Your task to perform on an android device: Search for jbl flip 4 on walmart, select the first entry, add it to the cart, then select checkout. Image 0: 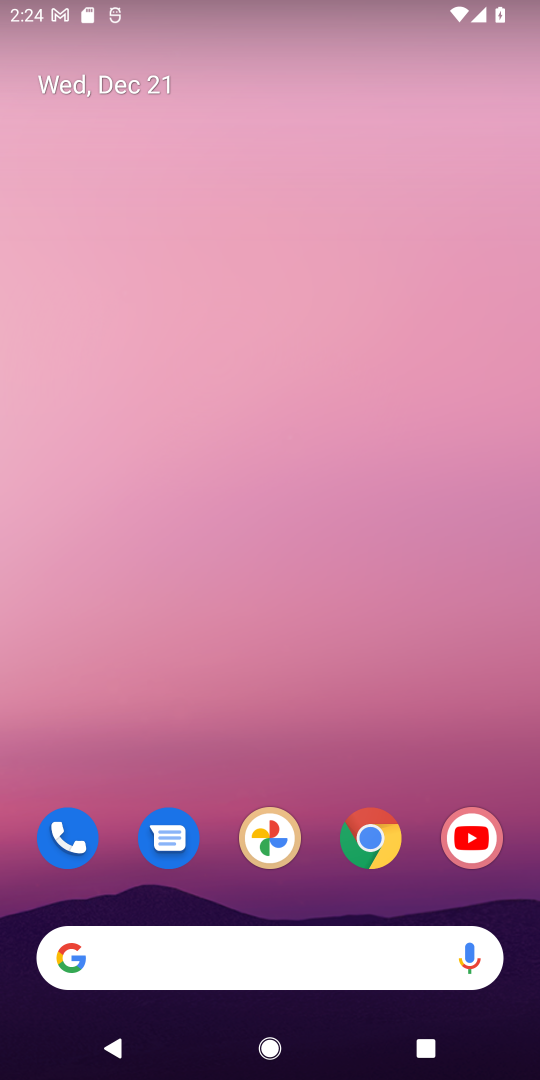
Step 0: click (358, 846)
Your task to perform on an android device: Search for jbl flip 4 on walmart, select the first entry, add it to the cart, then select checkout. Image 1: 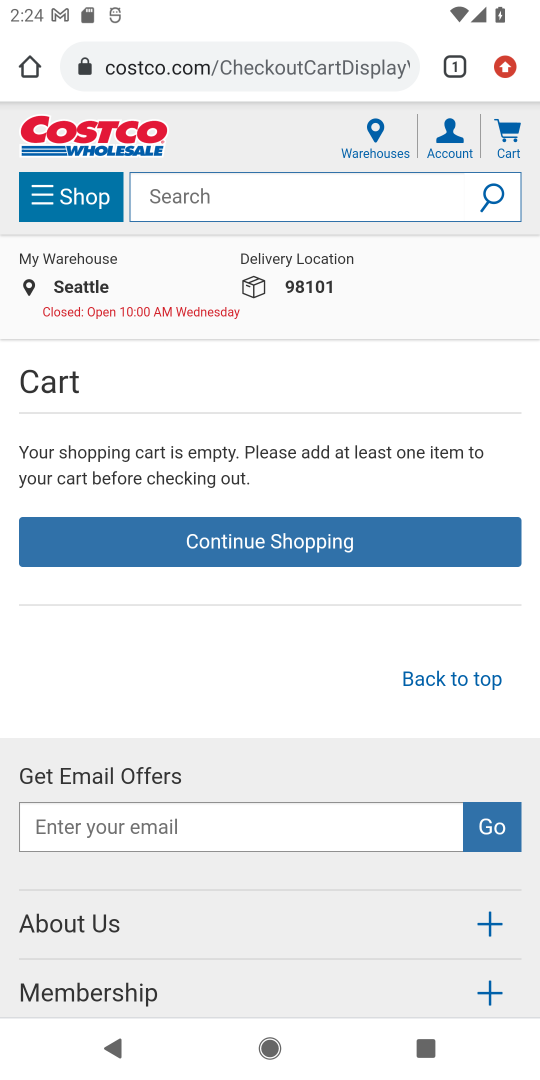
Step 1: click (349, 210)
Your task to perform on an android device: Search for jbl flip 4 on walmart, select the first entry, add it to the cart, then select checkout. Image 2: 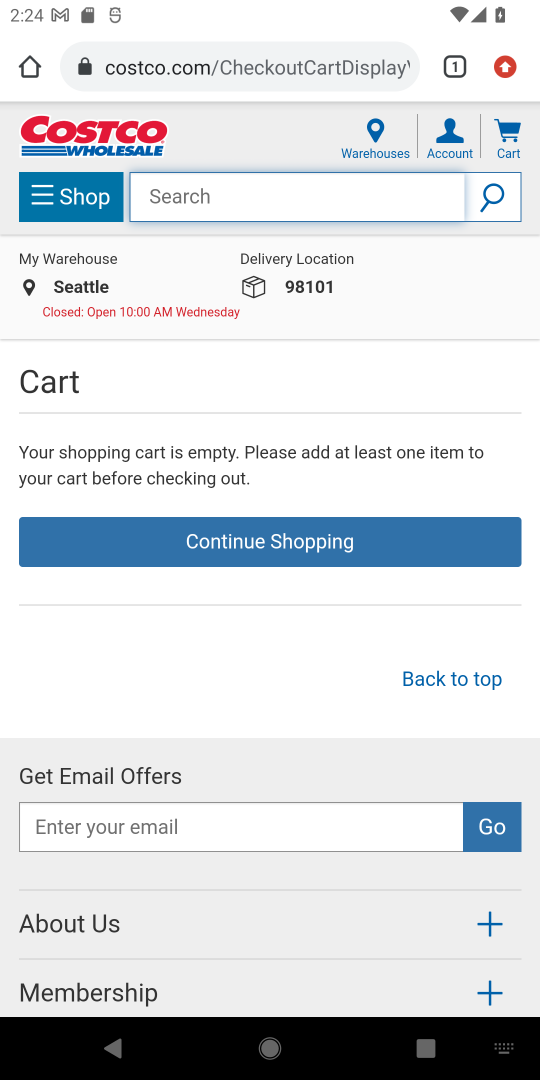
Step 2: click (276, 80)
Your task to perform on an android device: Search for jbl flip 4 on walmart, select the first entry, add it to the cart, then select checkout. Image 3: 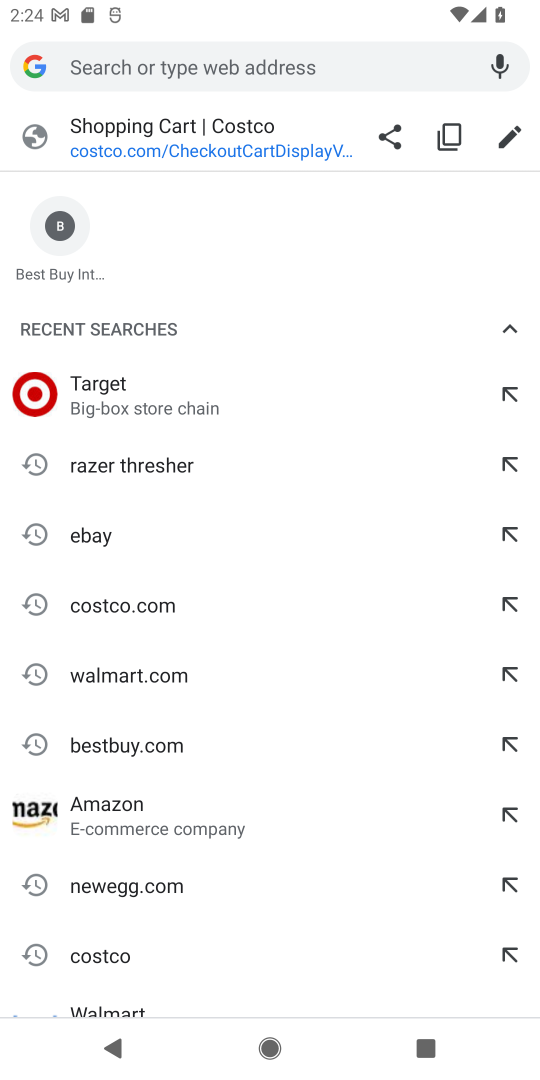
Step 3: type "wakmart"
Your task to perform on an android device: Search for jbl flip 4 on walmart, select the first entry, add it to the cart, then select checkout. Image 4: 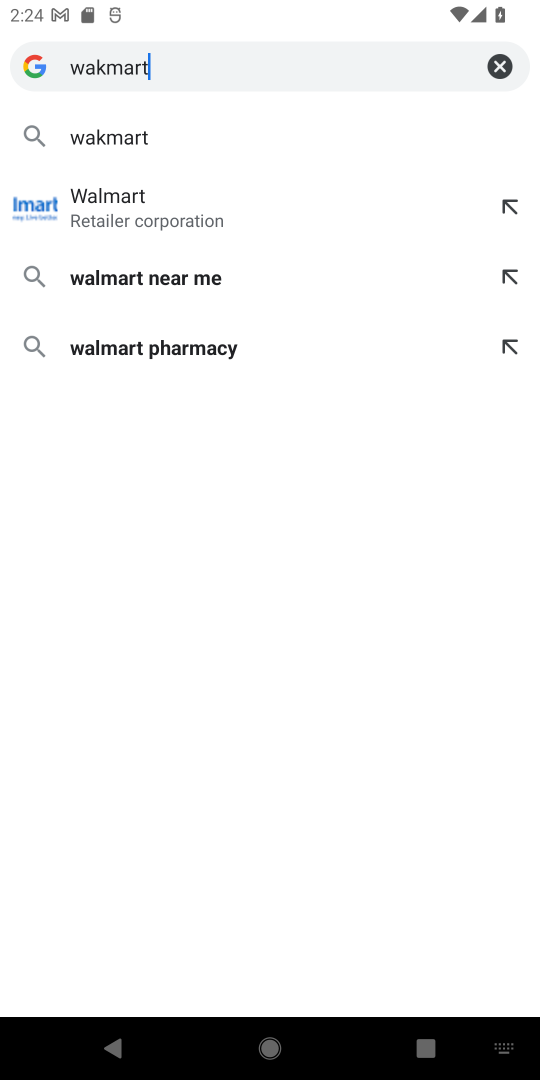
Step 4: click (149, 134)
Your task to perform on an android device: Search for jbl flip 4 on walmart, select the first entry, add it to the cart, then select checkout. Image 5: 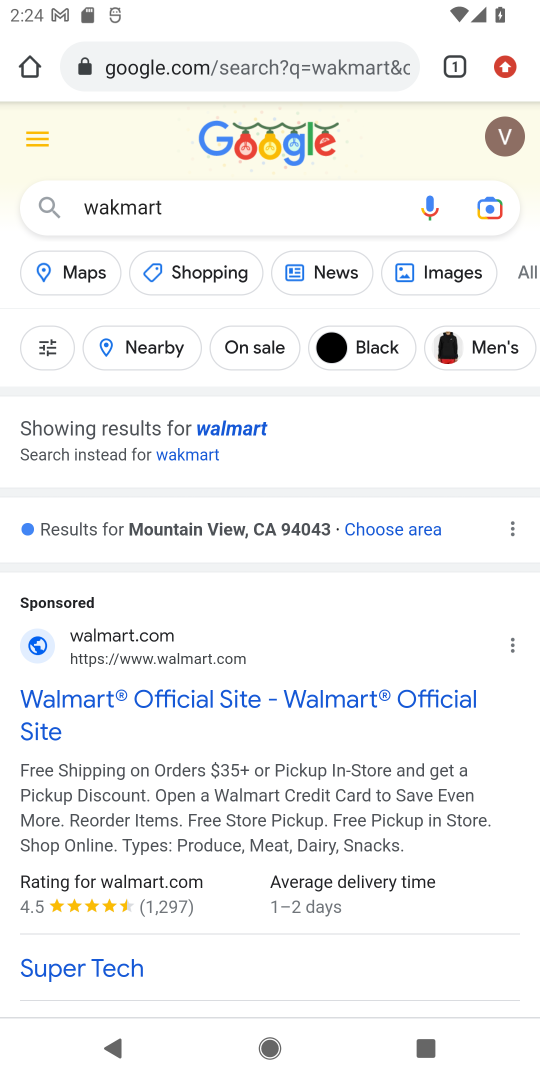
Step 5: click (92, 695)
Your task to perform on an android device: Search for jbl flip 4 on walmart, select the first entry, add it to the cart, then select checkout. Image 6: 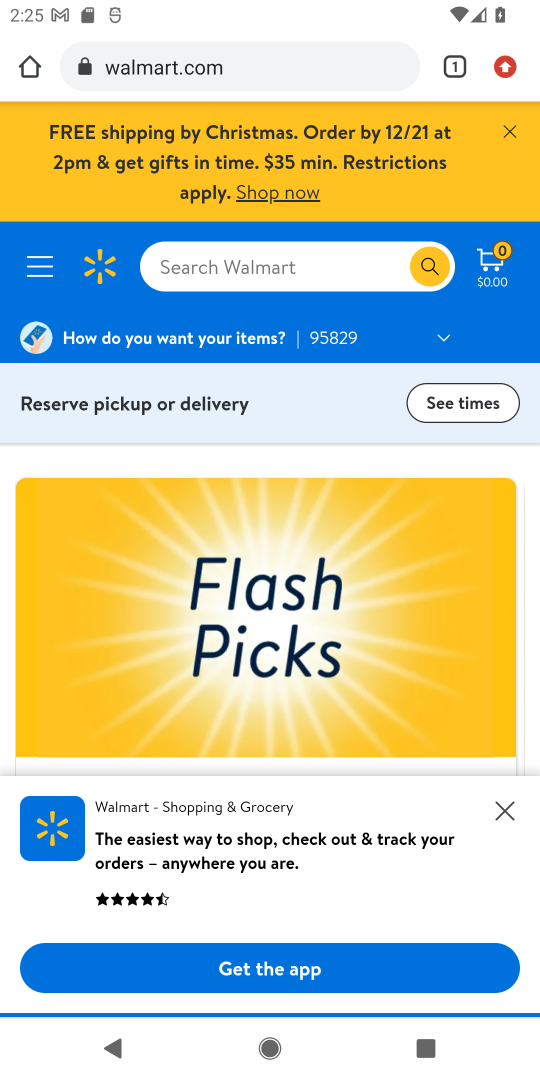
Step 6: click (505, 130)
Your task to perform on an android device: Search for jbl flip 4 on walmart, select the first entry, add it to the cart, then select checkout. Image 7: 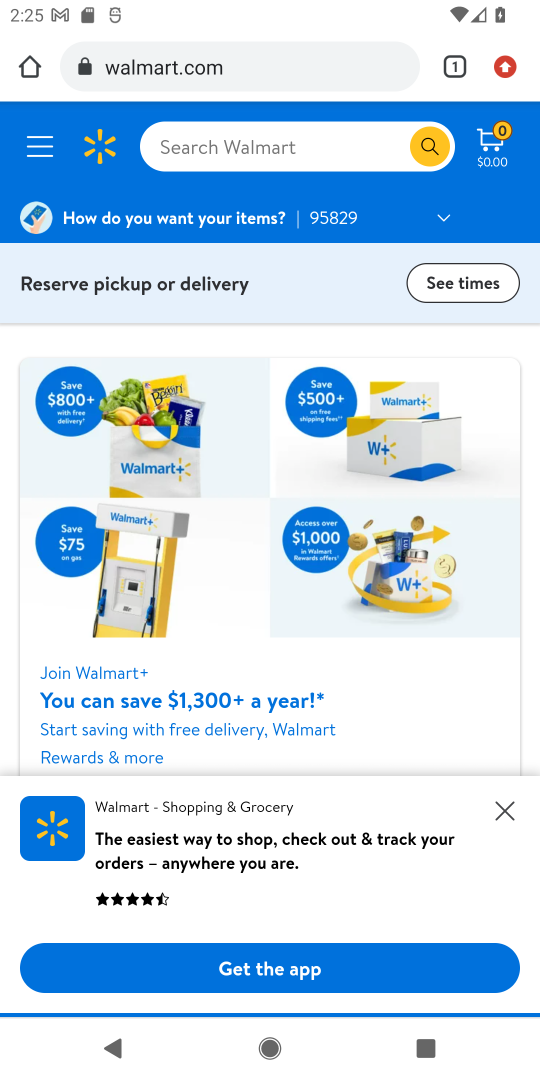
Step 7: click (308, 161)
Your task to perform on an android device: Search for jbl flip 4 on walmart, select the first entry, add it to the cart, then select checkout. Image 8: 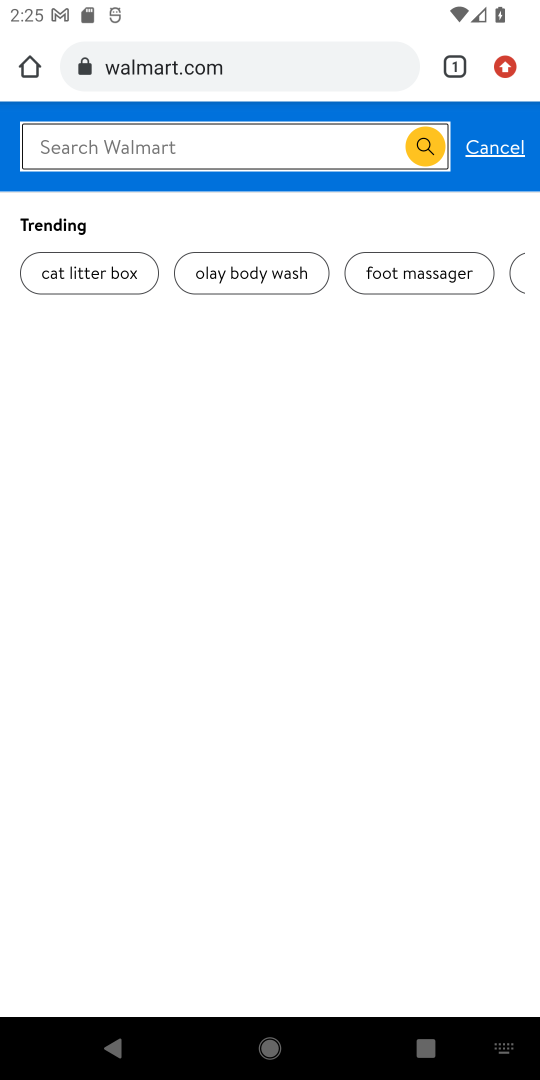
Step 8: type "jbl flip 4"
Your task to perform on an android device: Search for jbl flip 4 on walmart, select the first entry, add it to the cart, then select checkout. Image 9: 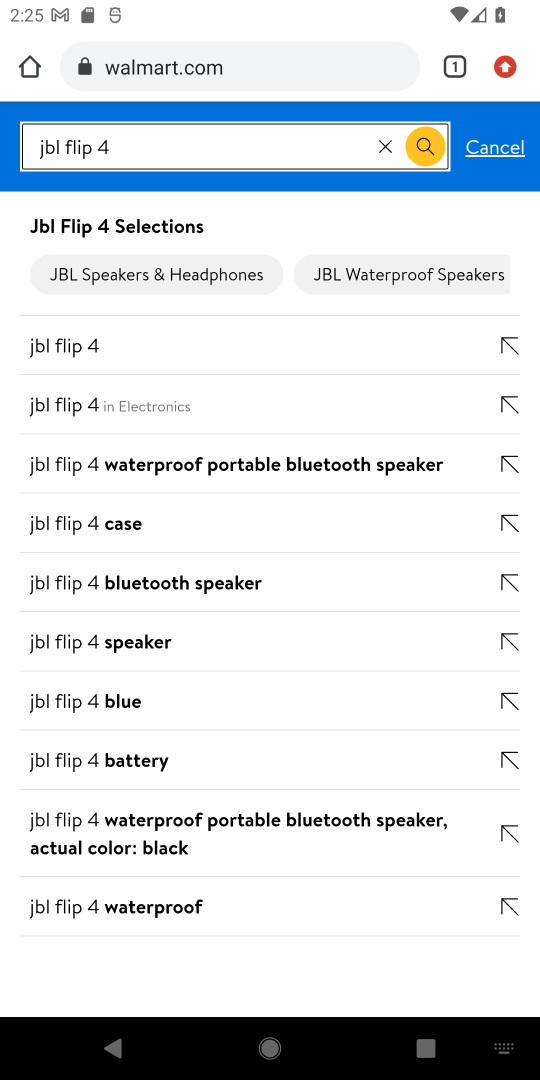
Step 9: click (175, 223)
Your task to perform on an android device: Search for jbl flip 4 on walmart, select the first entry, add it to the cart, then select checkout. Image 10: 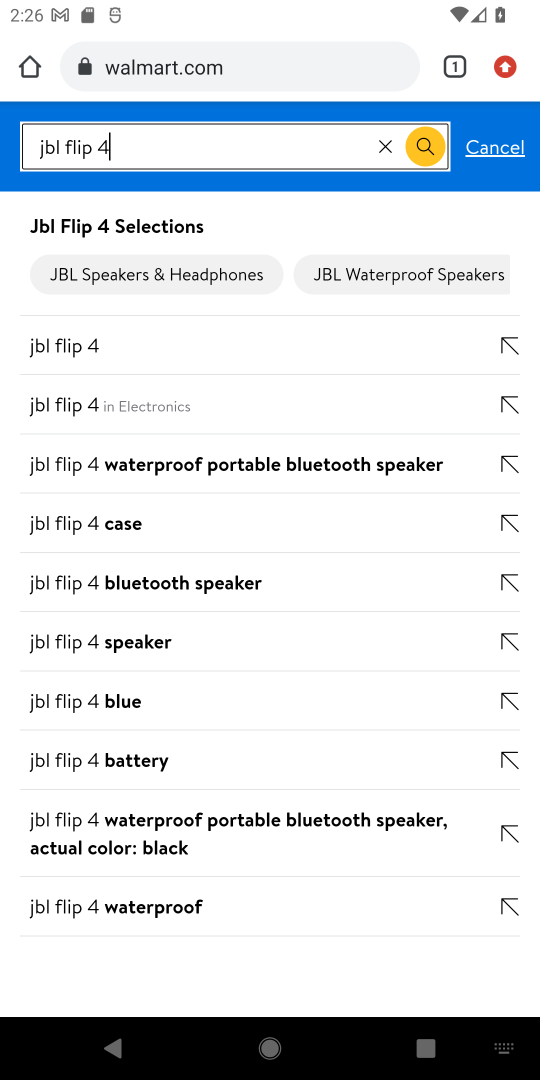
Step 10: click (76, 336)
Your task to perform on an android device: Search for jbl flip 4 on walmart, select the first entry, add it to the cart, then select checkout. Image 11: 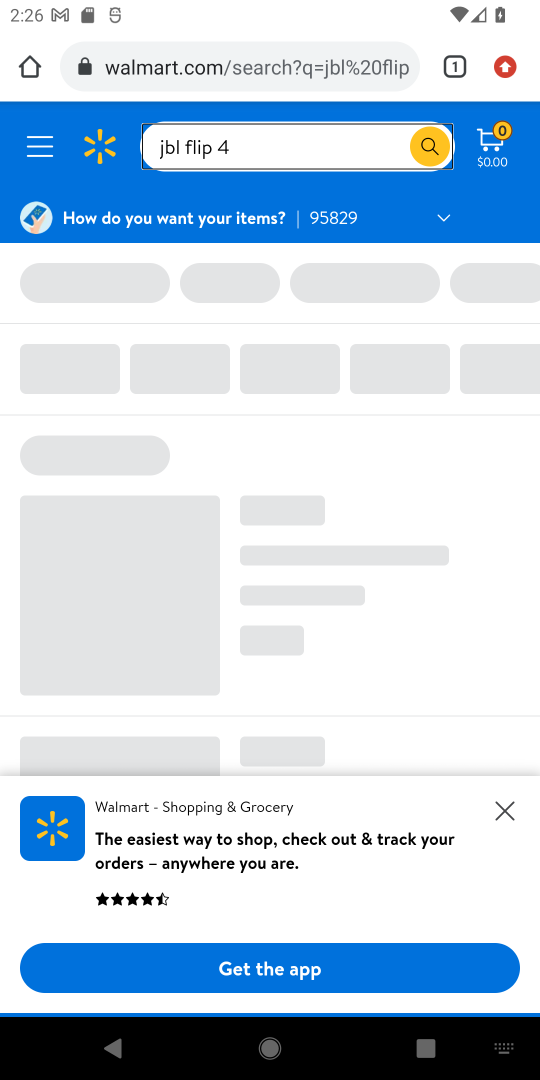
Step 11: click (517, 809)
Your task to perform on an android device: Search for jbl flip 4 on walmart, select the first entry, add it to the cart, then select checkout. Image 12: 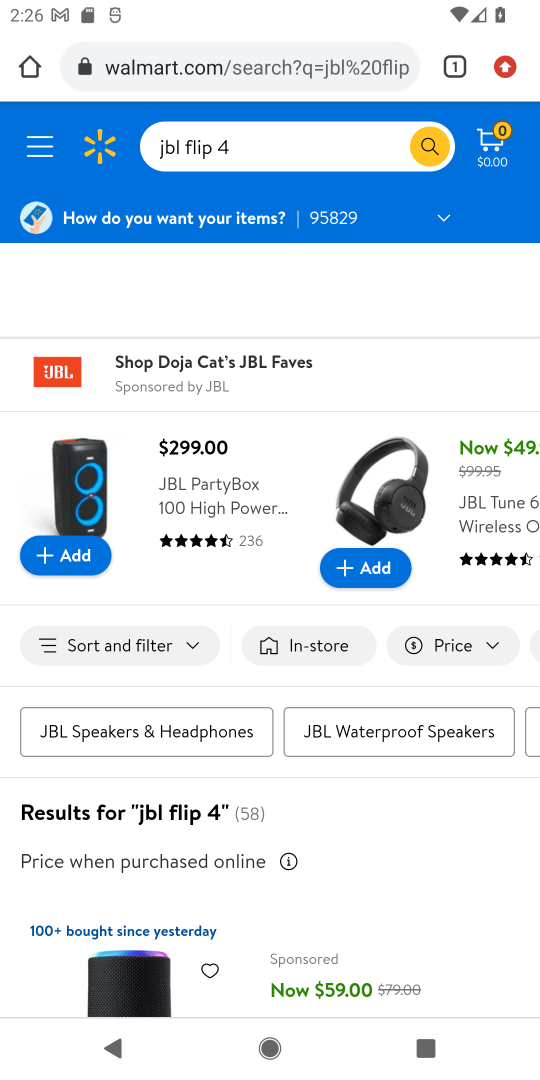
Step 12: click (340, 978)
Your task to perform on an android device: Search for jbl flip 4 on walmart, select the first entry, add it to the cart, then select checkout. Image 13: 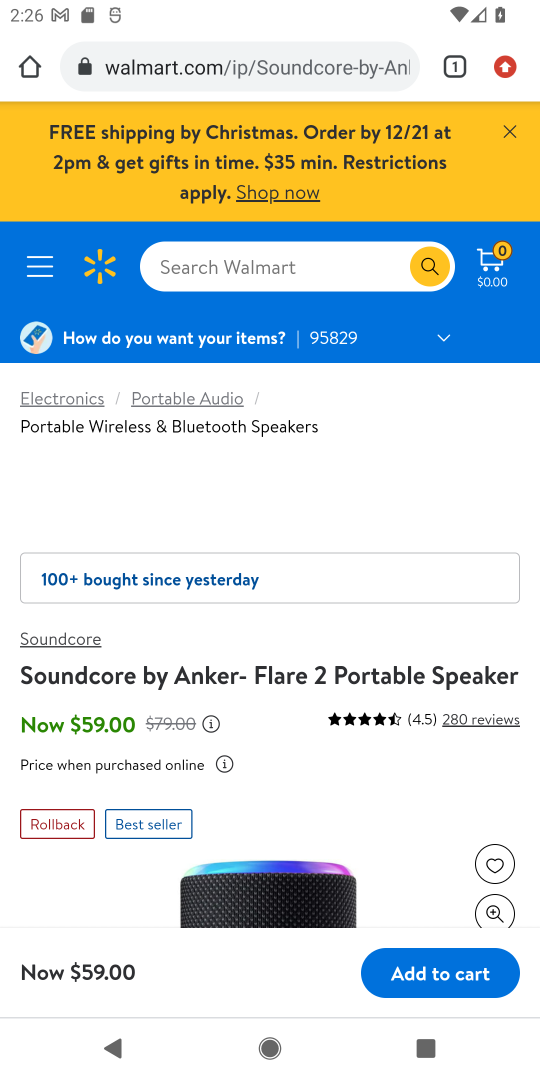
Step 13: click (414, 975)
Your task to perform on an android device: Search for jbl flip 4 on walmart, select the first entry, add it to the cart, then select checkout. Image 14: 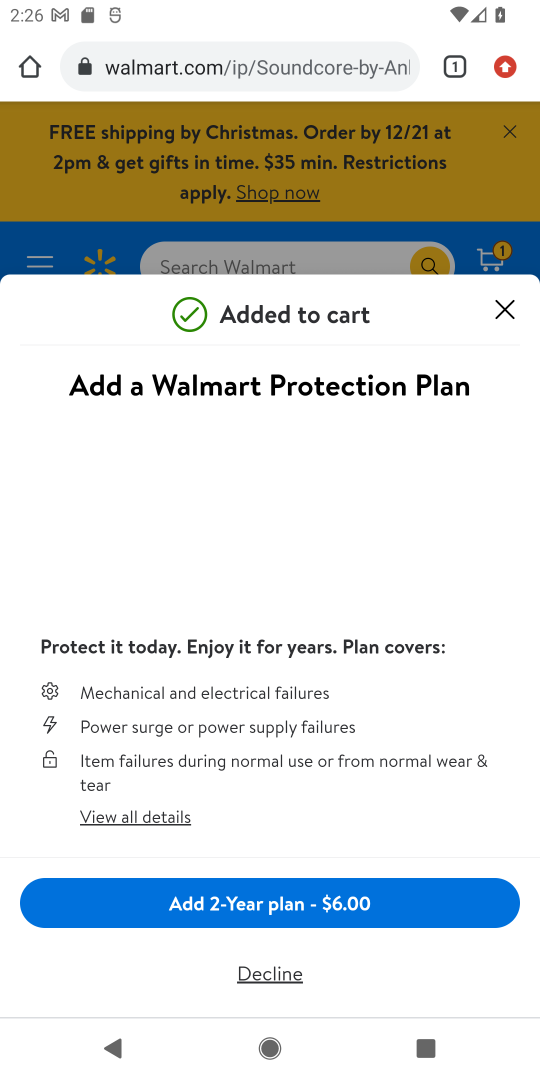
Step 14: task complete